Your task to perform on an android device: Open Youtube and go to the subscriptions tab Image 0: 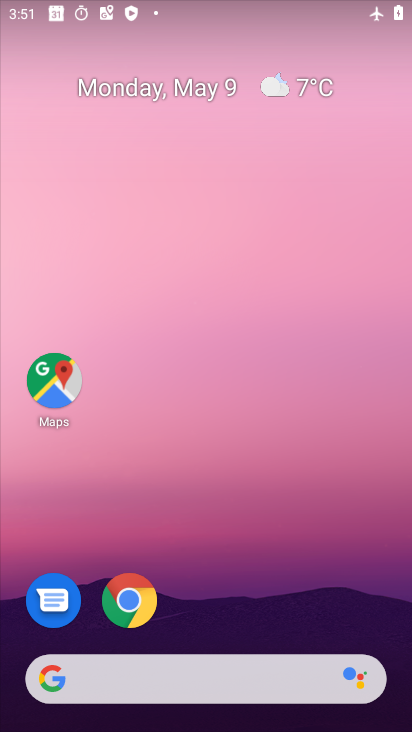
Step 0: drag from (315, 385) to (303, 183)
Your task to perform on an android device: Open Youtube and go to the subscriptions tab Image 1: 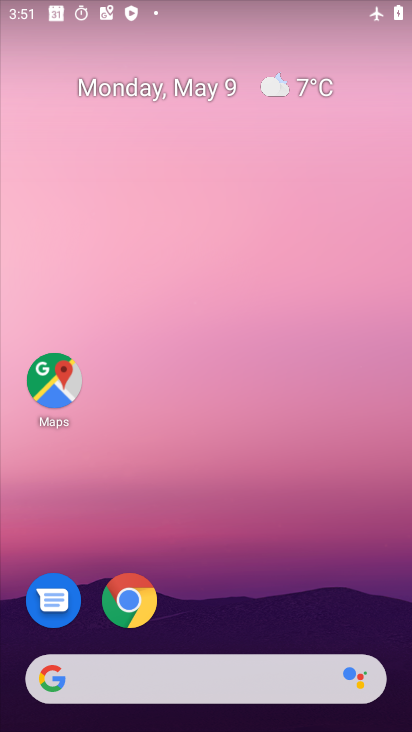
Step 1: drag from (293, 606) to (201, 122)
Your task to perform on an android device: Open Youtube and go to the subscriptions tab Image 2: 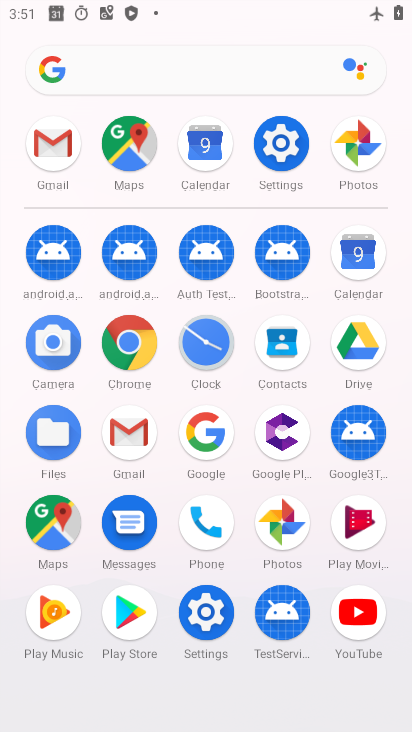
Step 2: click (355, 617)
Your task to perform on an android device: Open Youtube and go to the subscriptions tab Image 3: 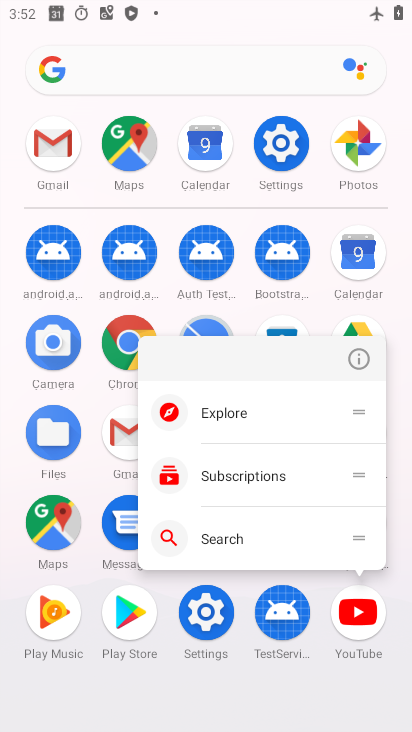
Step 3: click (353, 615)
Your task to perform on an android device: Open Youtube and go to the subscriptions tab Image 4: 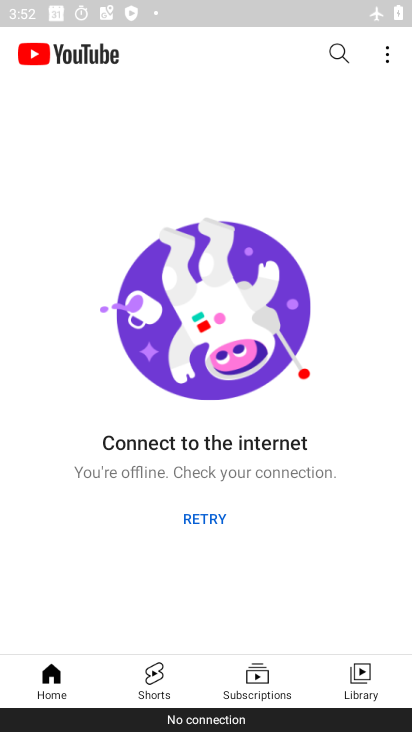
Step 4: click (256, 683)
Your task to perform on an android device: Open Youtube and go to the subscriptions tab Image 5: 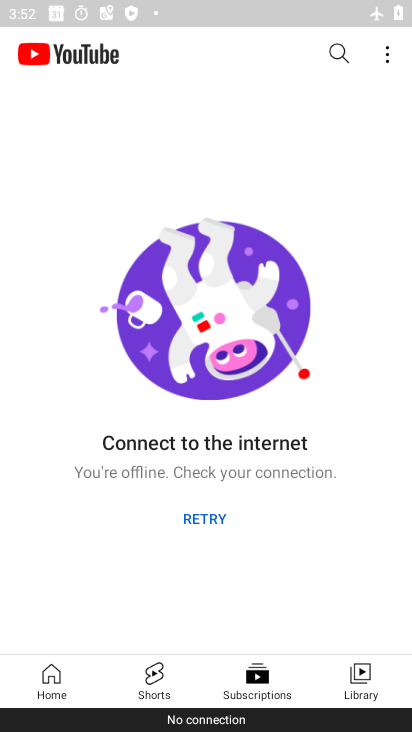
Step 5: task complete